Your task to perform on an android device: What's the weather going to be tomorrow? Image 0: 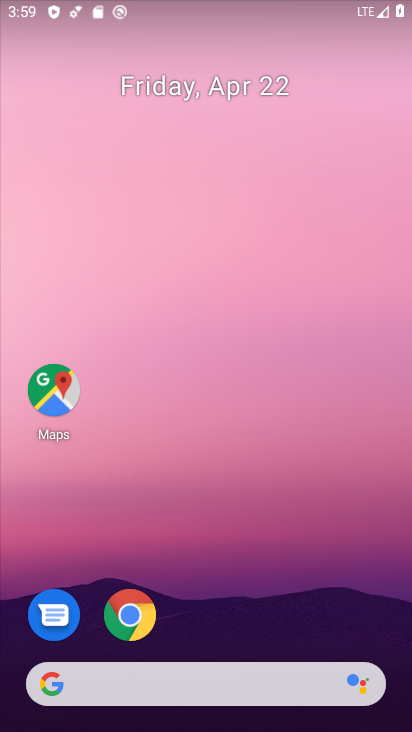
Step 0: drag from (328, 581) to (242, 504)
Your task to perform on an android device: What's the weather going to be tomorrow? Image 1: 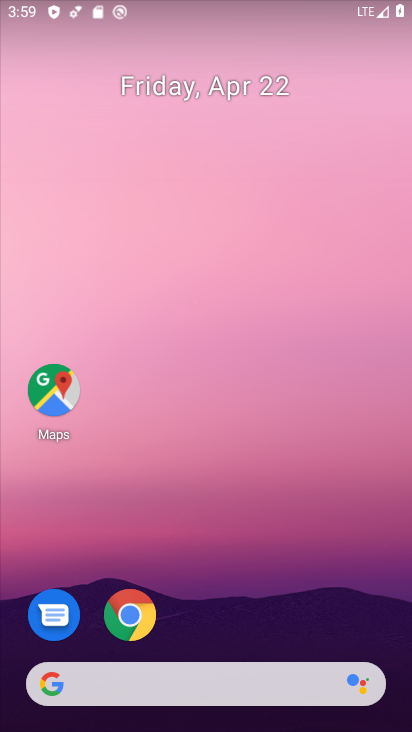
Step 1: drag from (16, 221) to (408, 181)
Your task to perform on an android device: What's the weather going to be tomorrow? Image 2: 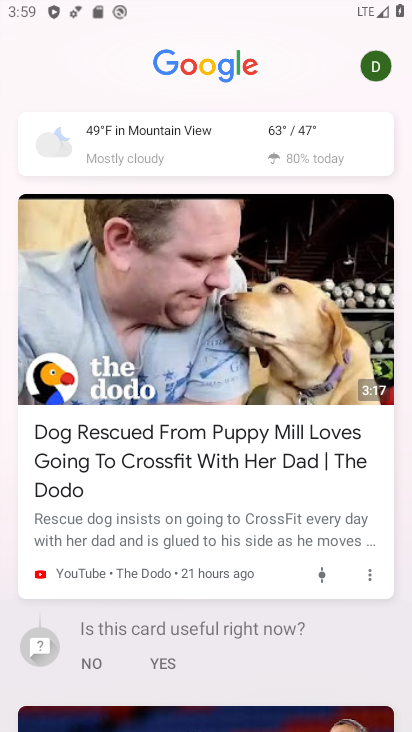
Step 2: click (302, 138)
Your task to perform on an android device: What's the weather going to be tomorrow? Image 3: 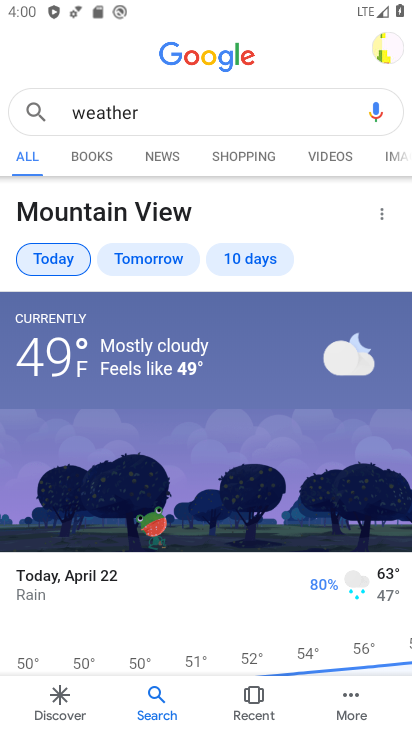
Step 3: click (140, 255)
Your task to perform on an android device: What's the weather going to be tomorrow? Image 4: 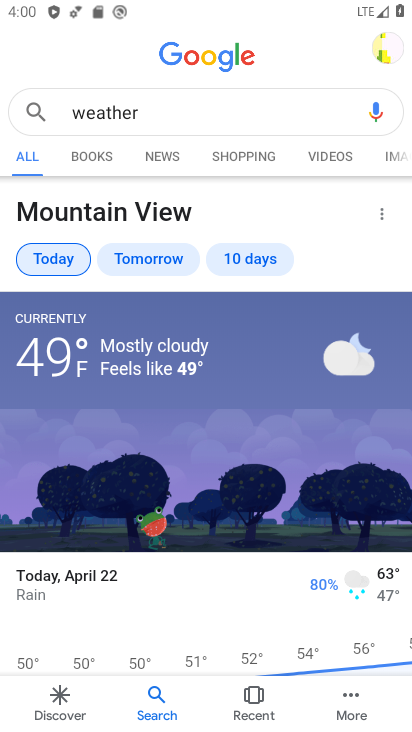
Step 4: click (168, 123)
Your task to perform on an android device: What's the weather going to be tomorrow? Image 5: 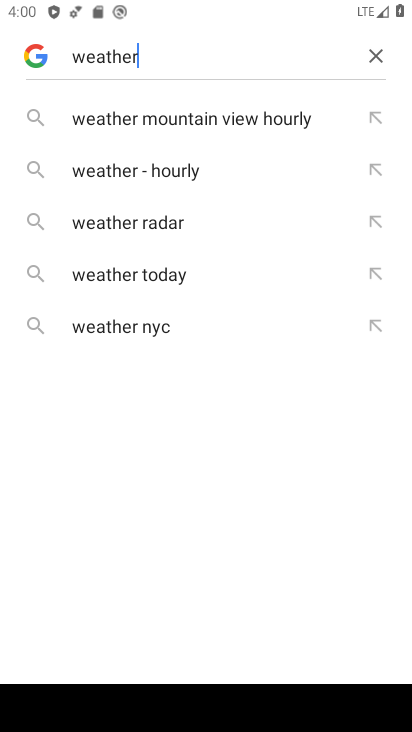
Step 5: type " tomorrow"
Your task to perform on an android device: What's the weather going to be tomorrow? Image 6: 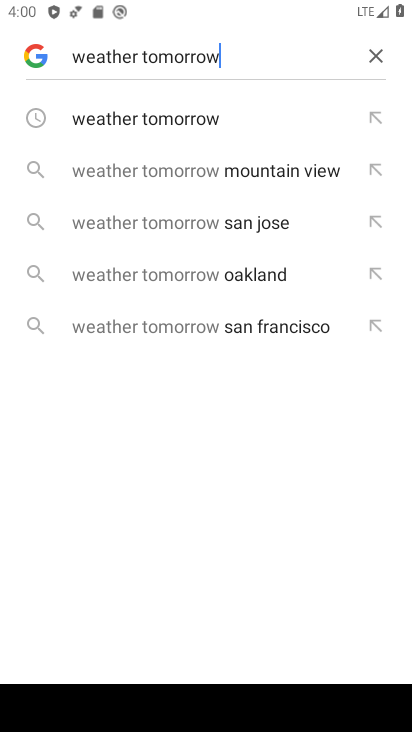
Step 6: click (211, 113)
Your task to perform on an android device: What's the weather going to be tomorrow? Image 7: 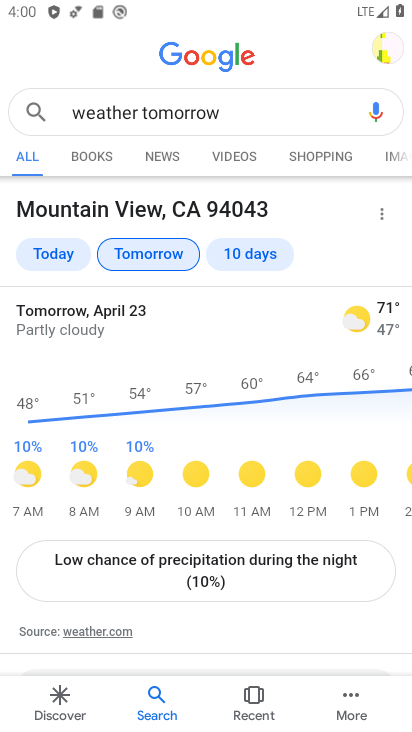
Step 7: task complete